Your task to perform on an android device: turn smart compose on in the gmail app Image 0: 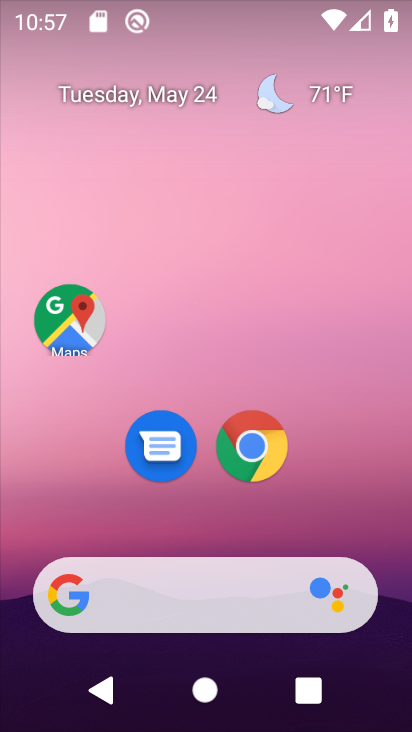
Step 0: drag from (198, 500) to (262, 165)
Your task to perform on an android device: turn smart compose on in the gmail app Image 1: 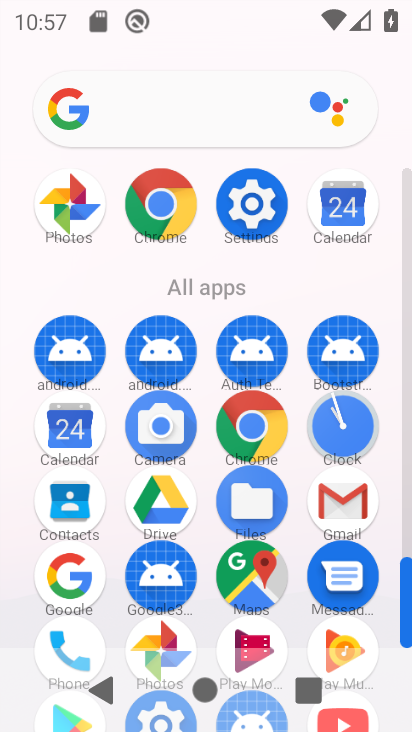
Step 1: drag from (215, 536) to (217, 198)
Your task to perform on an android device: turn smart compose on in the gmail app Image 2: 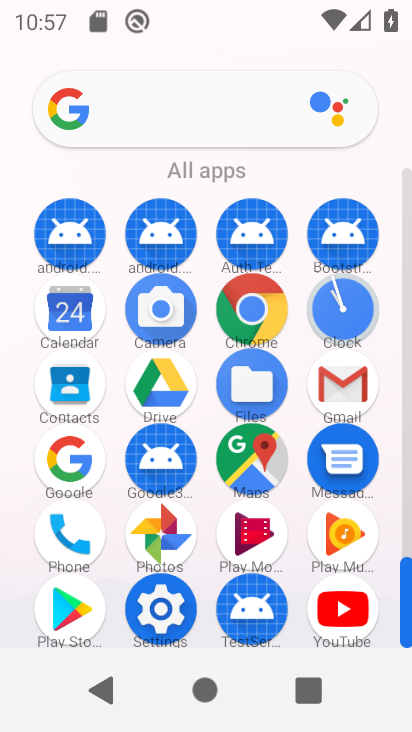
Step 2: click (330, 390)
Your task to perform on an android device: turn smart compose on in the gmail app Image 3: 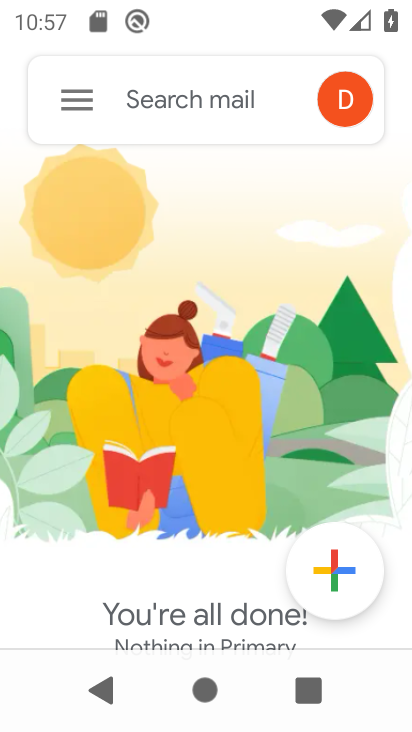
Step 3: click (80, 91)
Your task to perform on an android device: turn smart compose on in the gmail app Image 4: 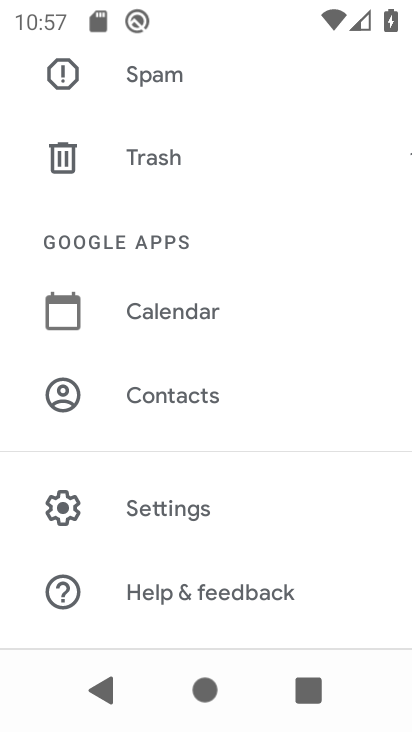
Step 4: click (169, 520)
Your task to perform on an android device: turn smart compose on in the gmail app Image 5: 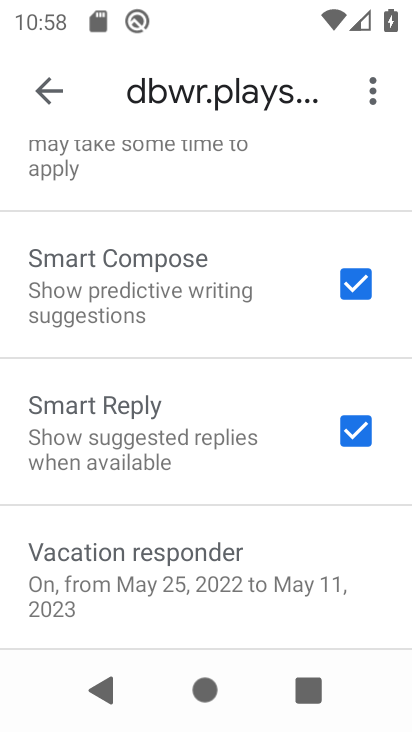
Step 5: task complete